Your task to perform on an android device: Open Chrome and go to settings Image 0: 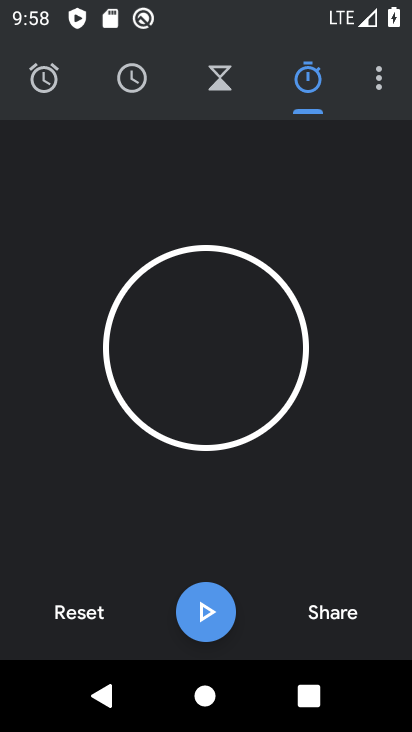
Step 0: press back button
Your task to perform on an android device: Open Chrome and go to settings Image 1: 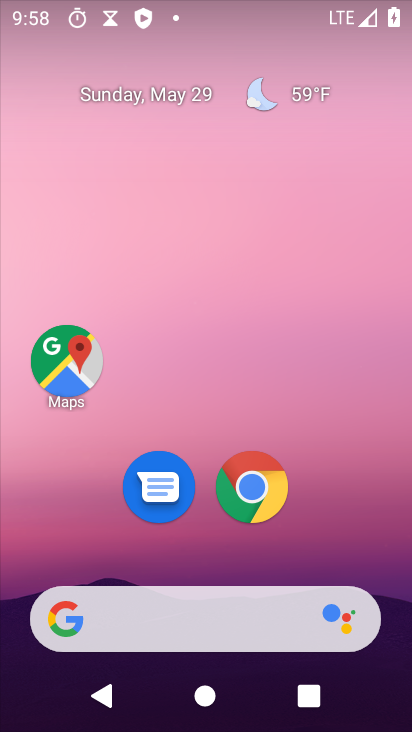
Step 1: click (255, 487)
Your task to perform on an android device: Open Chrome and go to settings Image 2: 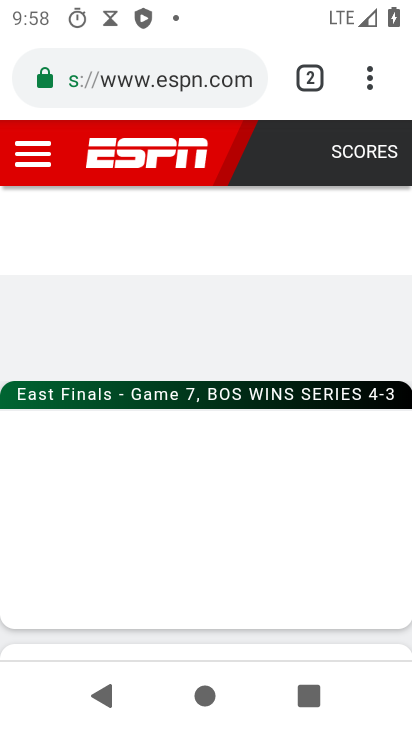
Step 2: click (369, 77)
Your task to perform on an android device: Open Chrome and go to settings Image 3: 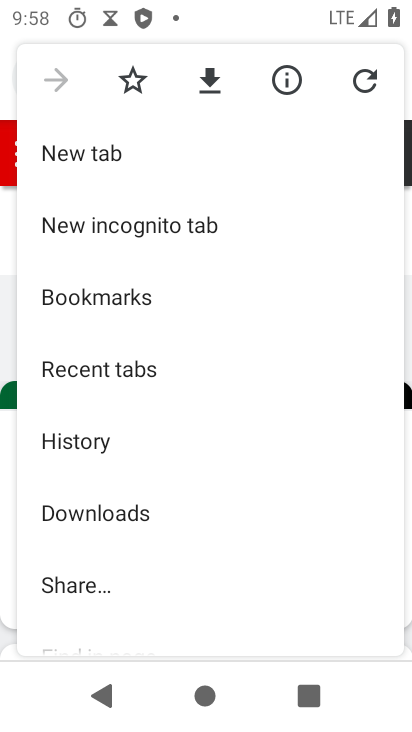
Step 3: drag from (109, 412) to (175, 303)
Your task to perform on an android device: Open Chrome and go to settings Image 4: 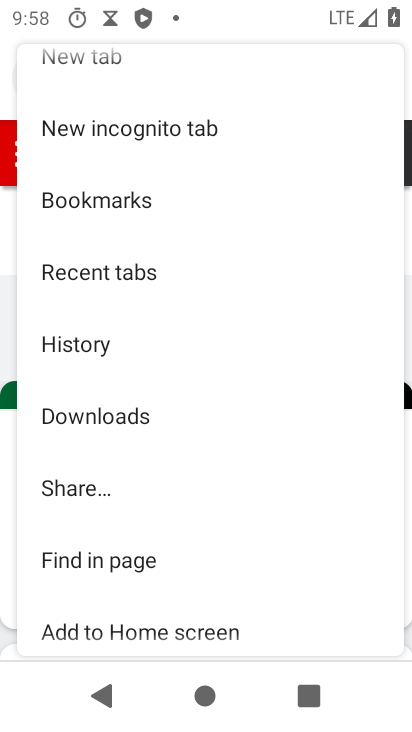
Step 4: drag from (112, 461) to (154, 353)
Your task to perform on an android device: Open Chrome and go to settings Image 5: 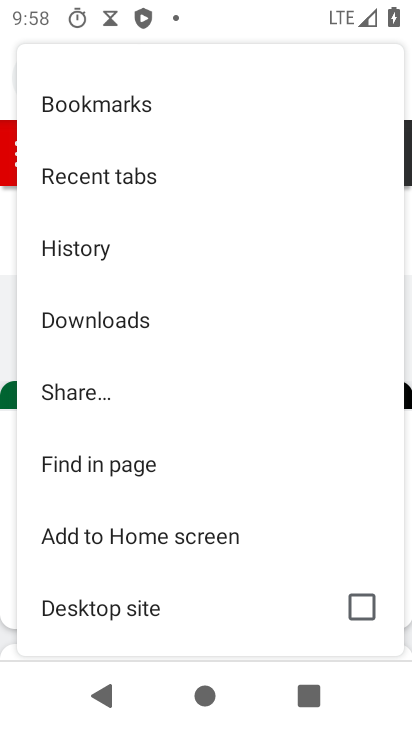
Step 5: drag from (104, 514) to (193, 389)
Your task to perform on an android device: Open Chrome and go to settings Image 6: 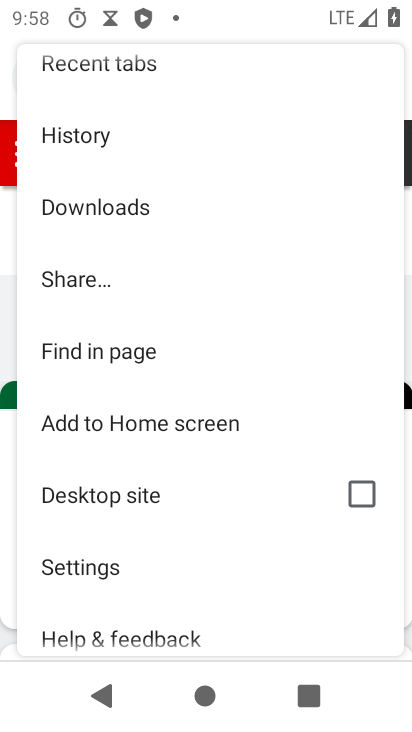
Step 6: drag from (100, 529) to (186, 402)
Your task to perform on an android device: Open Chrome and go to settings Image 7: 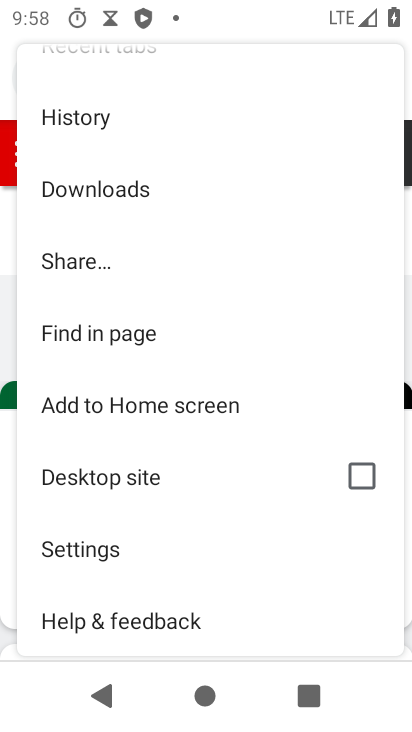
Step 7: click (108, 555)
Your task to perform on an android device: Open Chrome and go to settings Image 8: 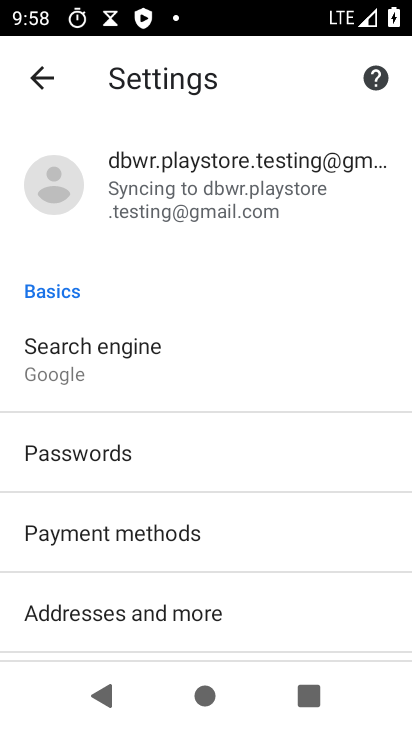
Step 8: task complete